Your task to perform on an android device: toggle data saver in the chrome app Image 0: 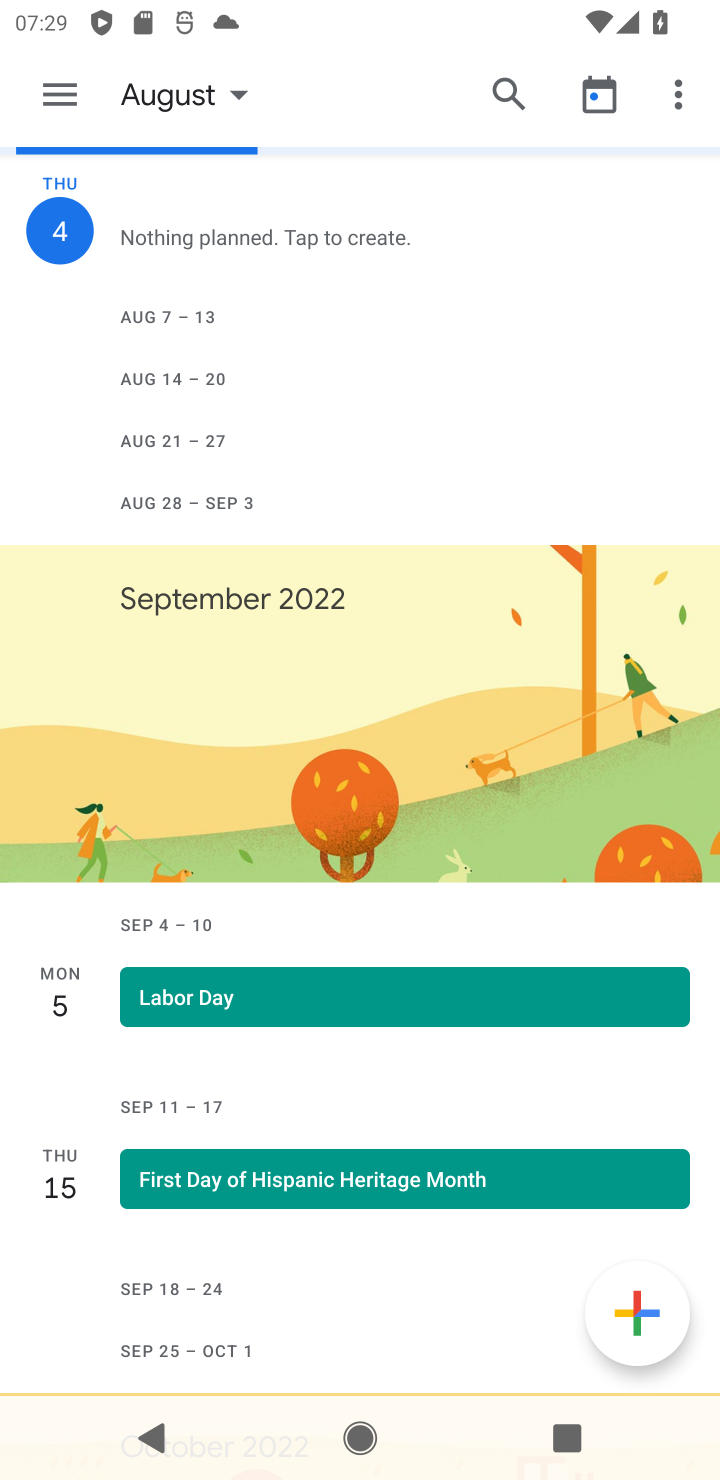
Step 0: press home button
Your task to perform on an android device: toggle data saver in the chrome app Image 1: 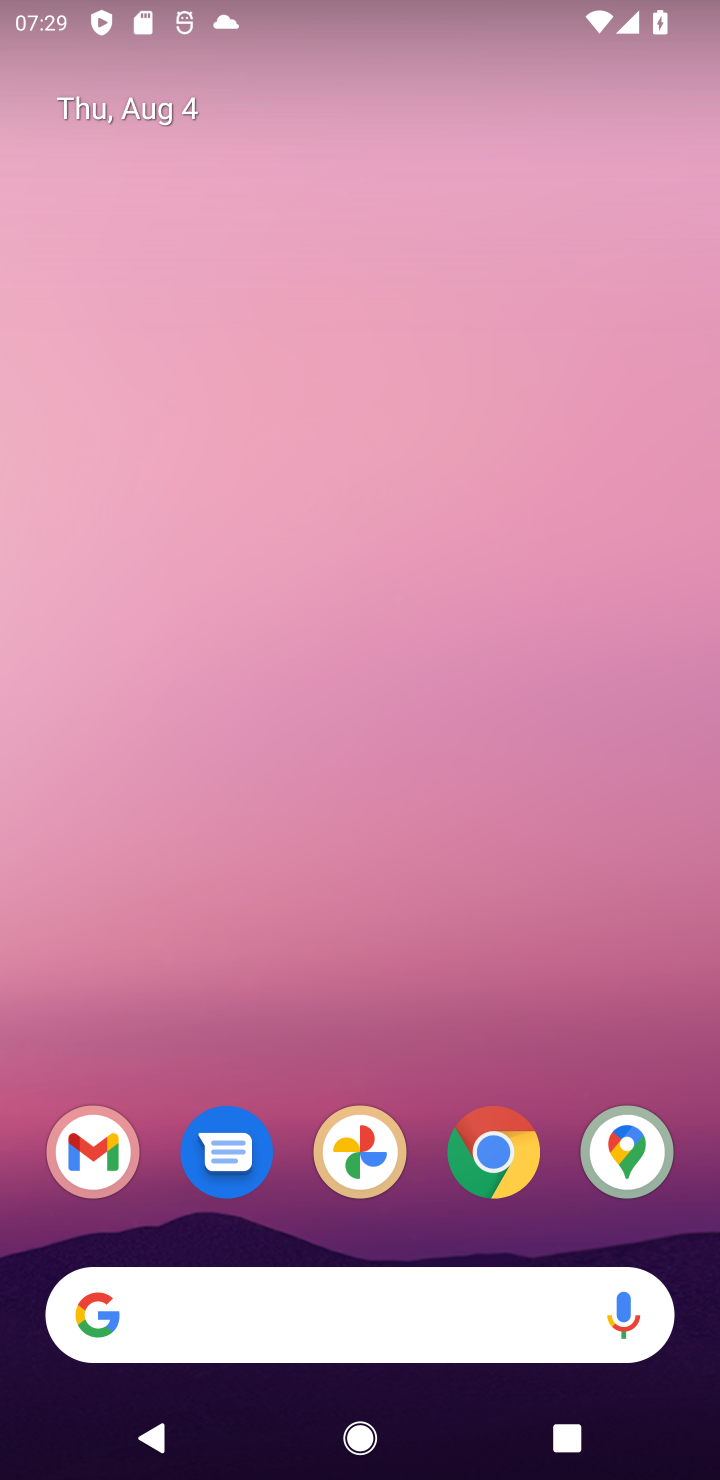
Step 1: click (505, 1132)
Your task to perform on an android device: toggle data saver in the chrome app Image 2: 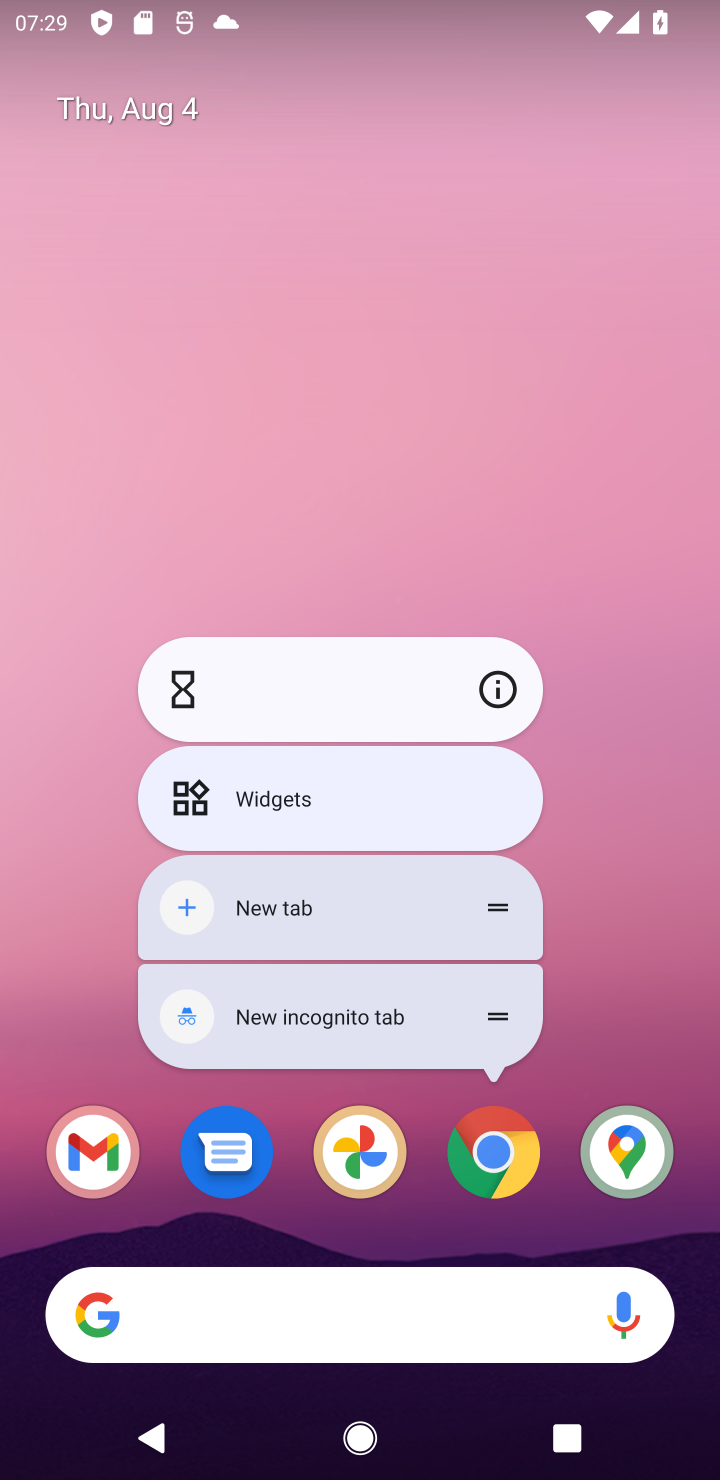
Step 2: click (497, 1145)
Your task to perform on an android device: toggle data saver in the chrome app Image 3: 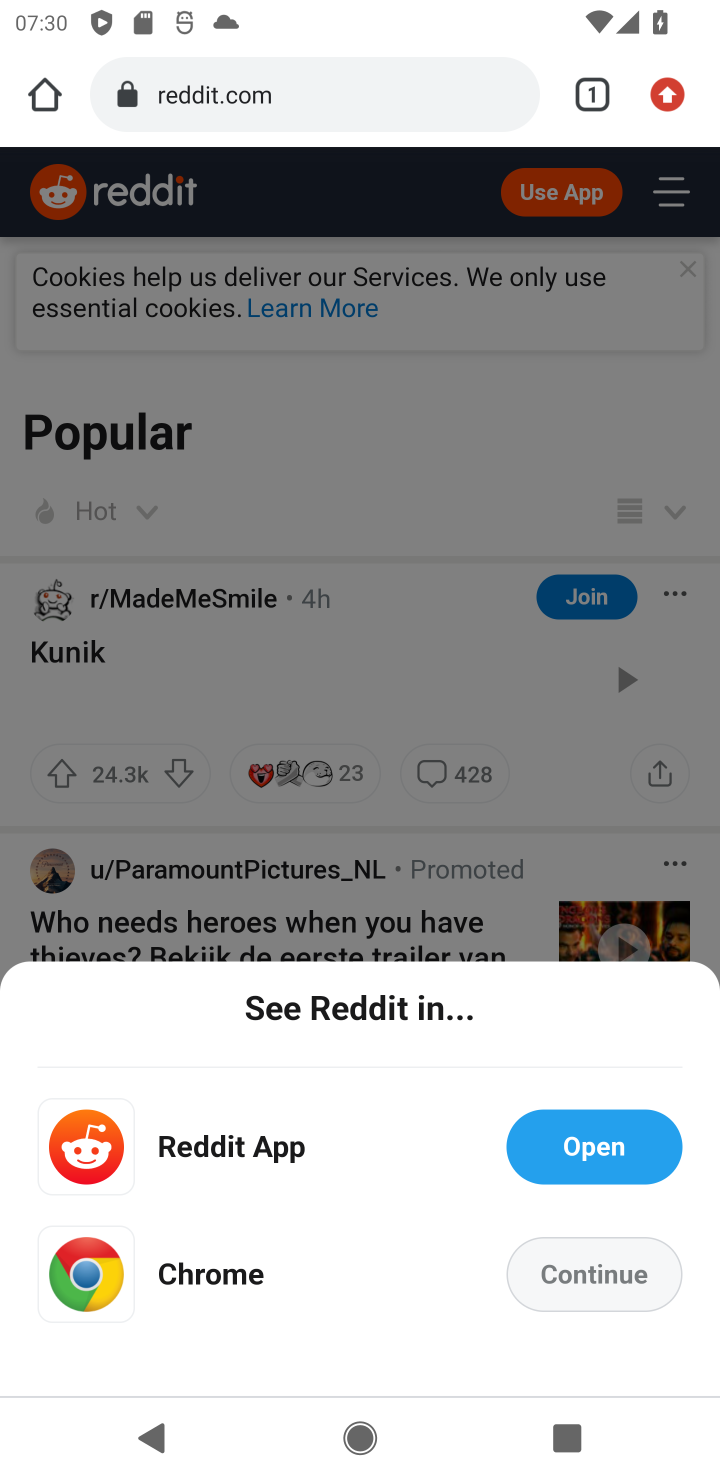
Step 3: click (605, 92)
Your task to perform on an android device: toggle data saver in the chrome app Image 4: 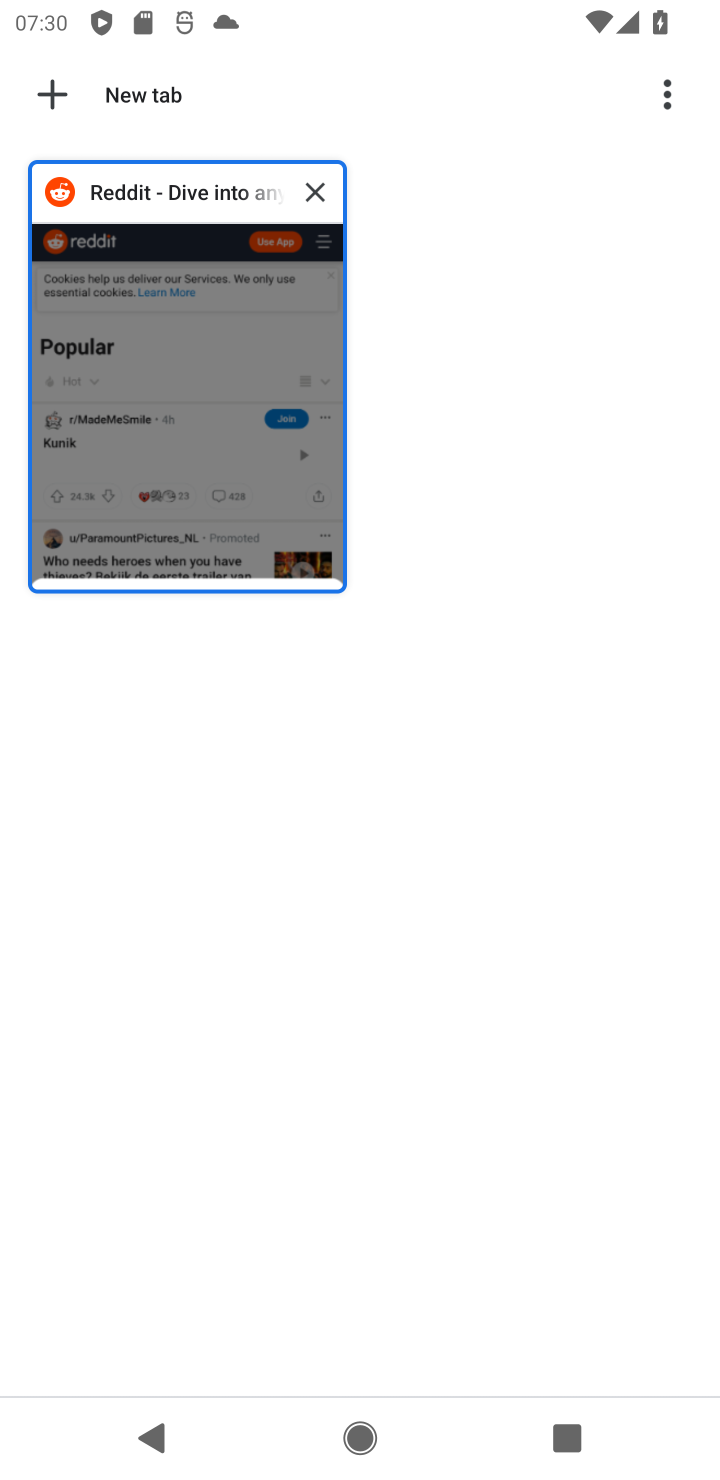
Step 4: click (304, 187)
Your task to perform on an android device: toggle data saver in the chrome app Image 5: 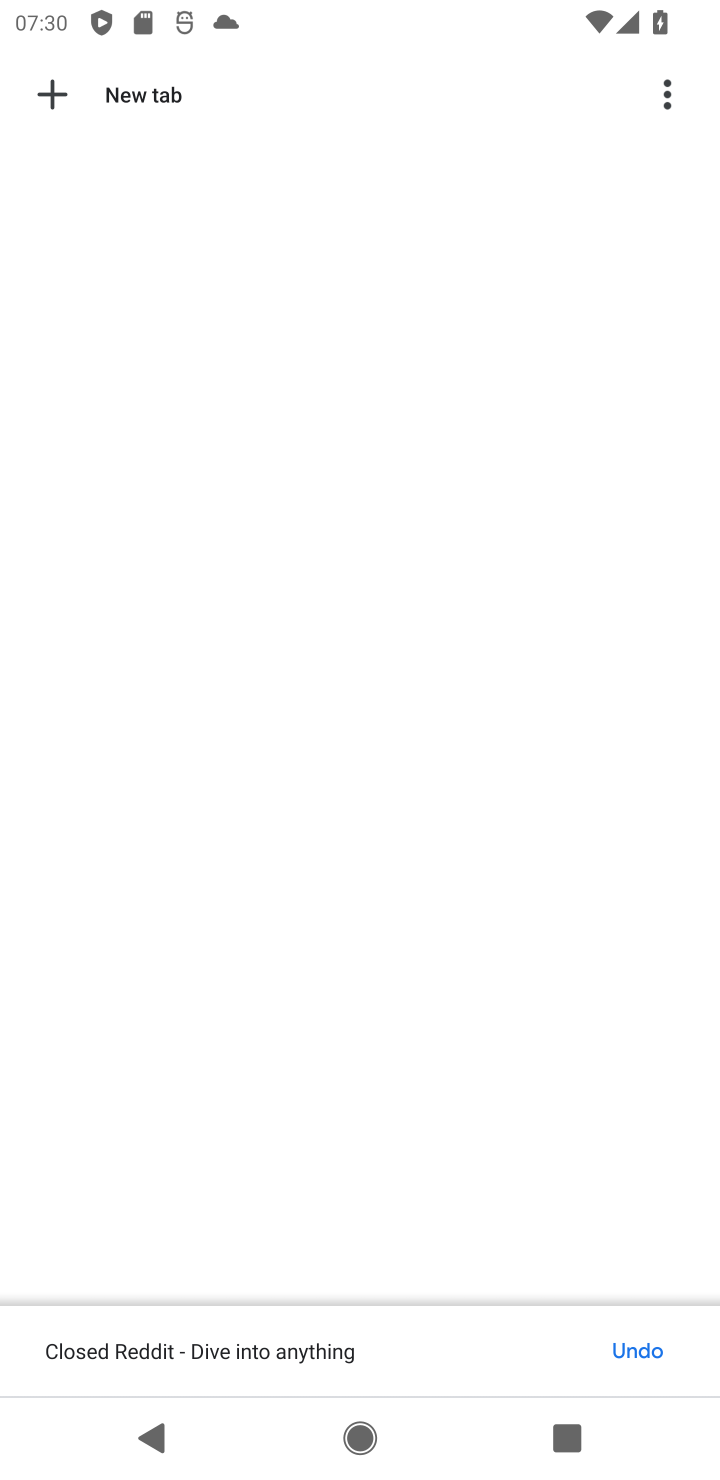
Step 5: click (668, 92)
Your task to perform on an android device: toggle data saver in the chrome app Image 6: 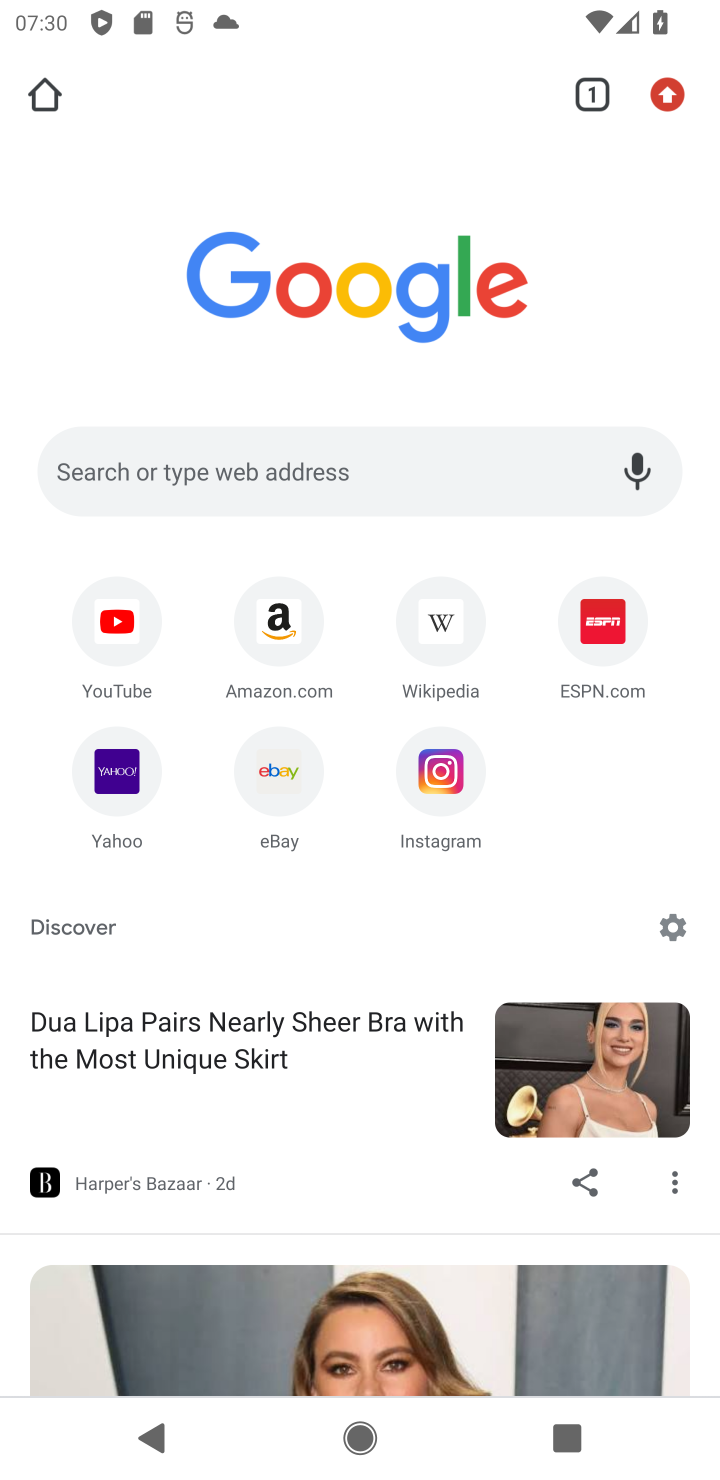
Step 6: click (665, 98)
Your task to perform on an android device: toggle data saver in the chrome app Image 7: 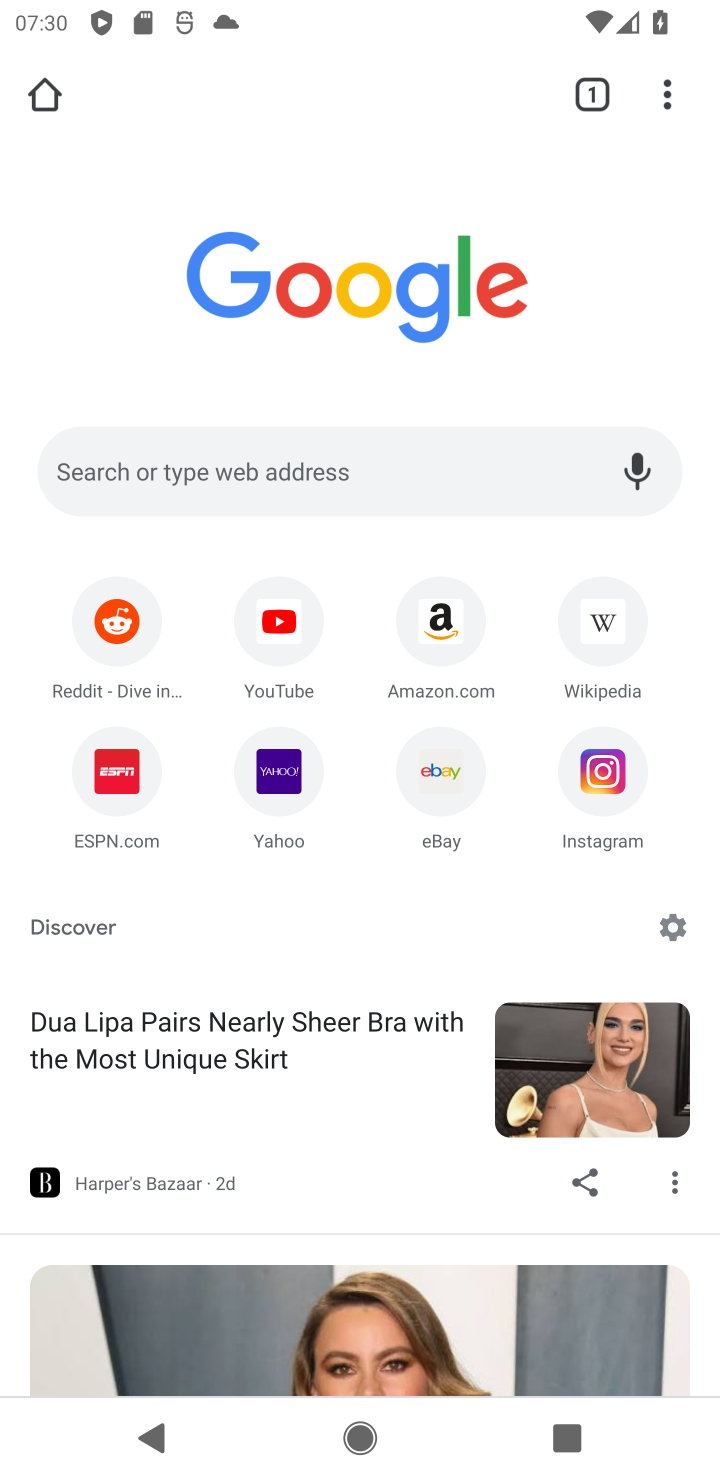
Step 7: click (671, 104)
Your task to perform on an android device: toggle data saver in the chrome app Image 8: 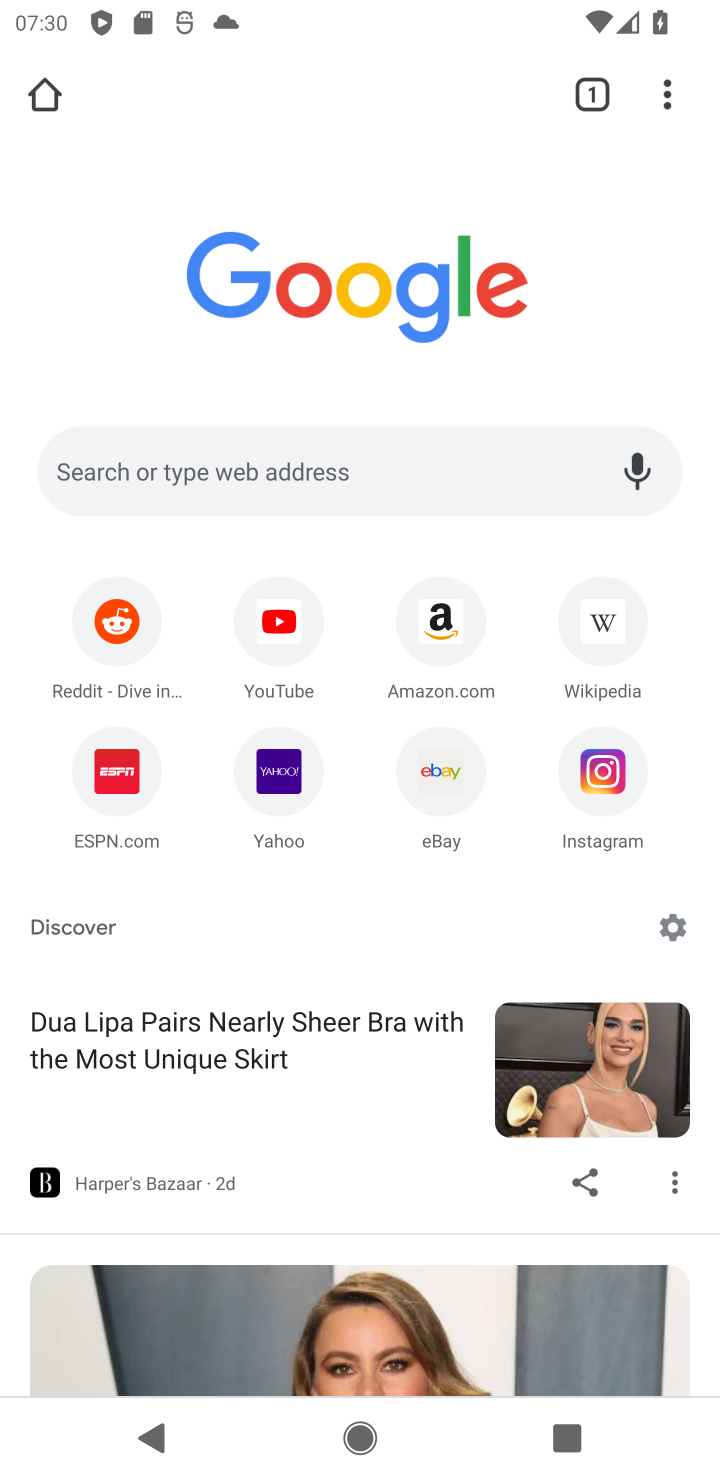
Step 8: click (667, 86)
Your task to perform on an android device: toggle data saver in the chrome app Image 9: 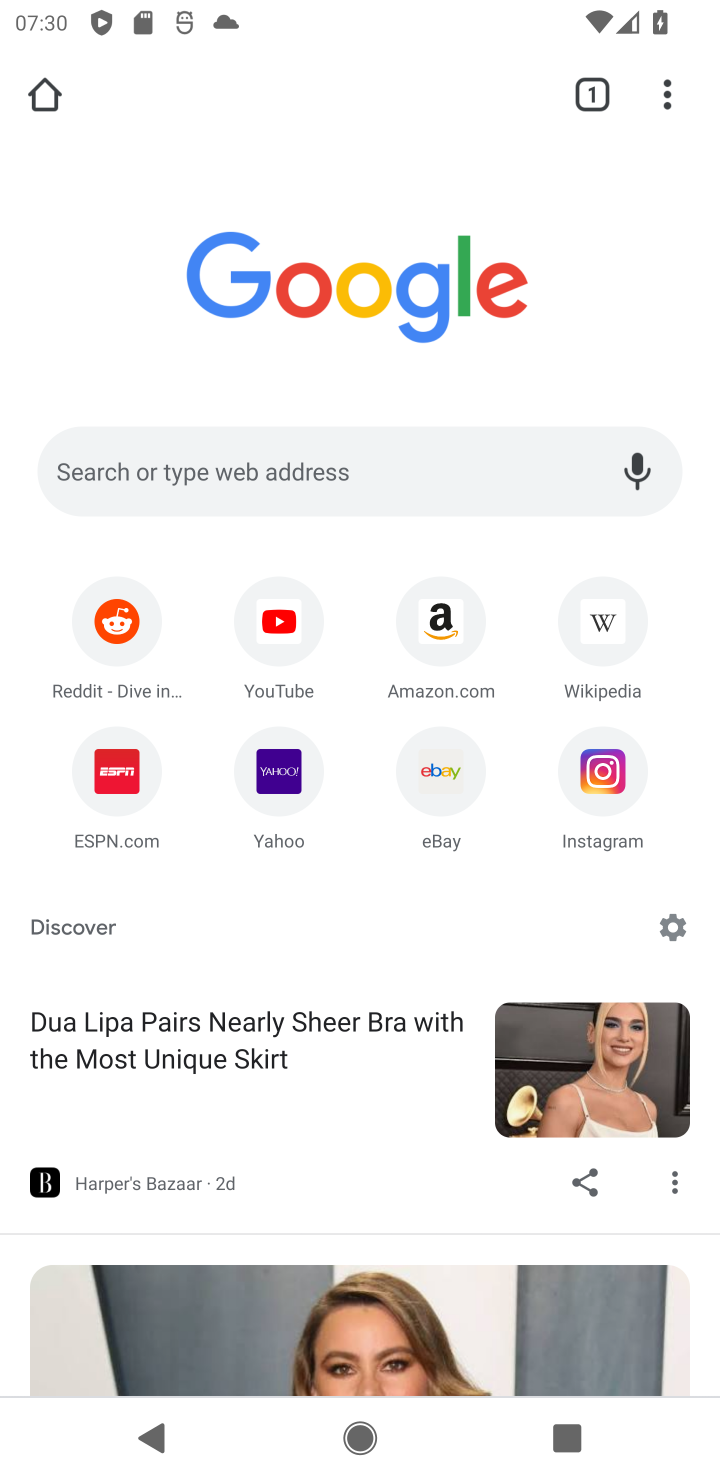
Step 9: click (668, 89)
Your task to perform on an android device: toggle data saver in the chrome app Image 10: 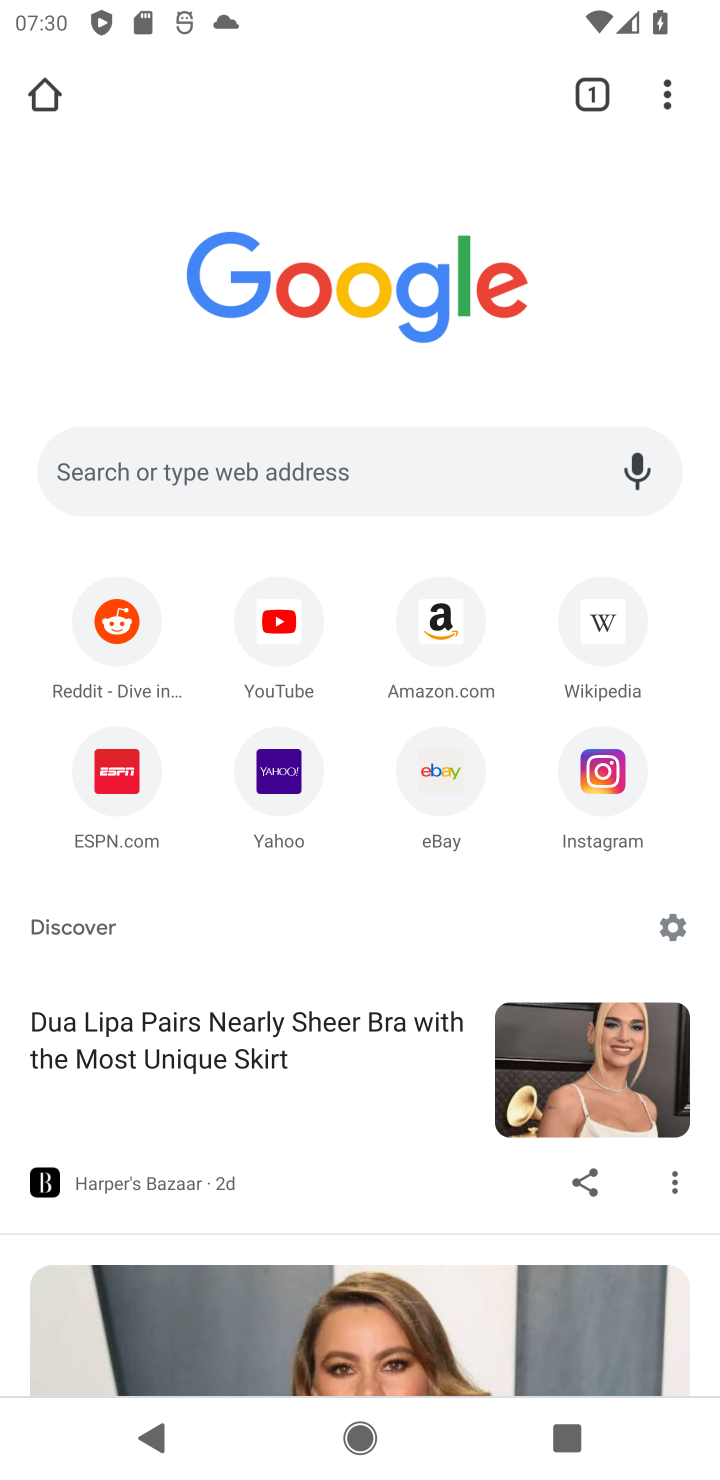
Step 10: task complete